Your task to perform on an android device: Go to Android settings Image 0: 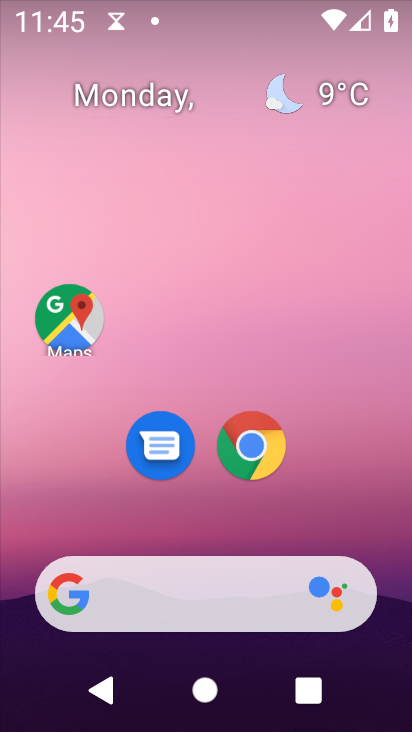
Step 0: drag from (279, 566) to (332, 6)
Your task to perform on an android device: Go to Android settings Image 1: 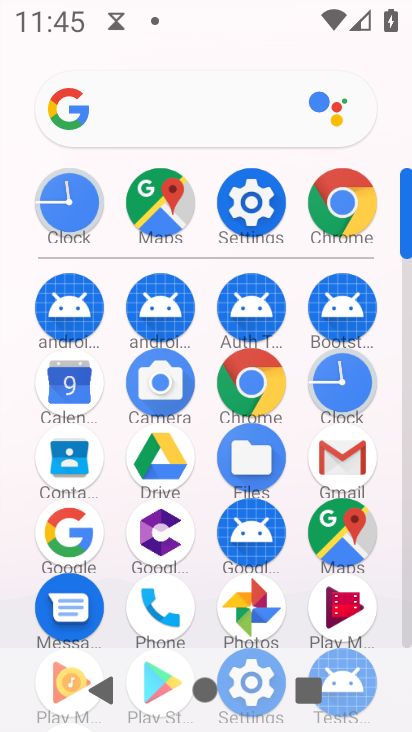
Step 1: click (268, 190)
Your task to perform on an android device: Go to Android settings Image 2: 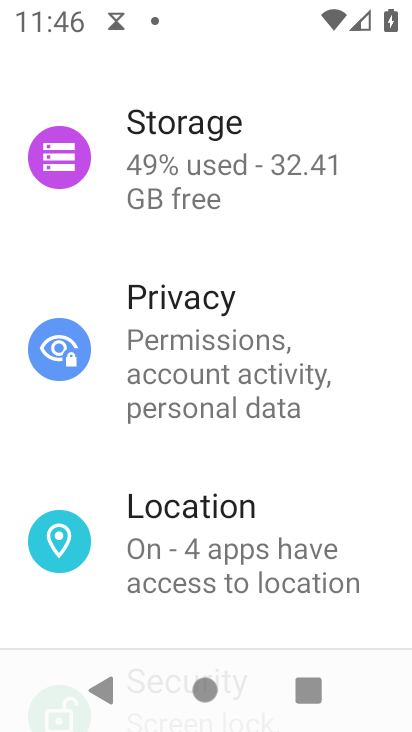
Step 2: drag from (240, 237) to (312, 96)
Your task to perform on an android device: Go to Android settings Image 3: 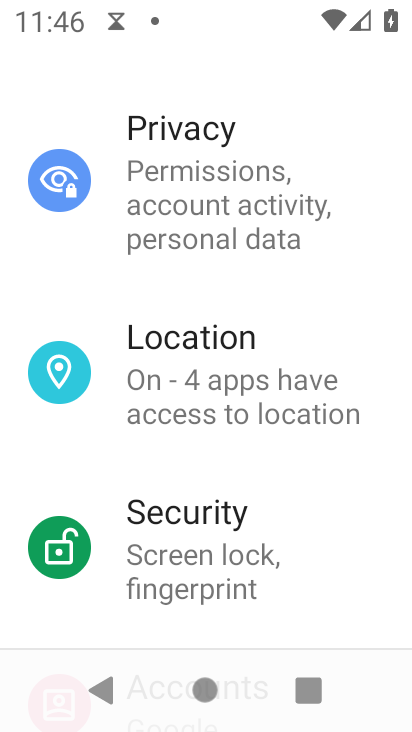
Step 3: drag from (273, 498) to (314, 104)
Your task to perform on an android device: Go to Android settings Image 4: 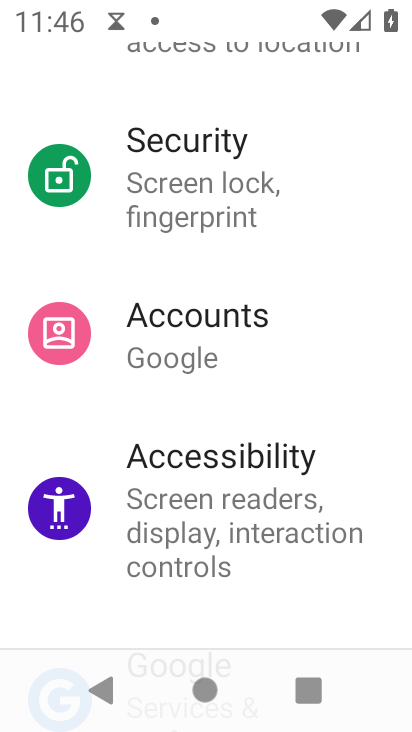
Step 4: drag from (315, 538) to (367, 96)
Your task to perform on an android device: Go to Android settings Image 5: 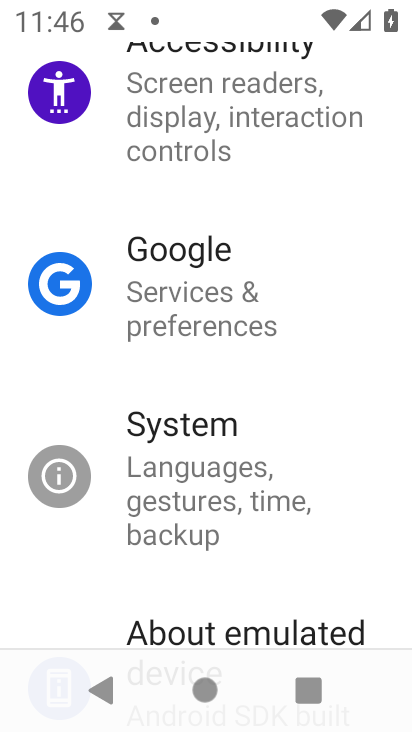
Step 5: drag from (253, 604) to (289, 216)
Your task to perform on an android device: Go to Android settings Image 6: 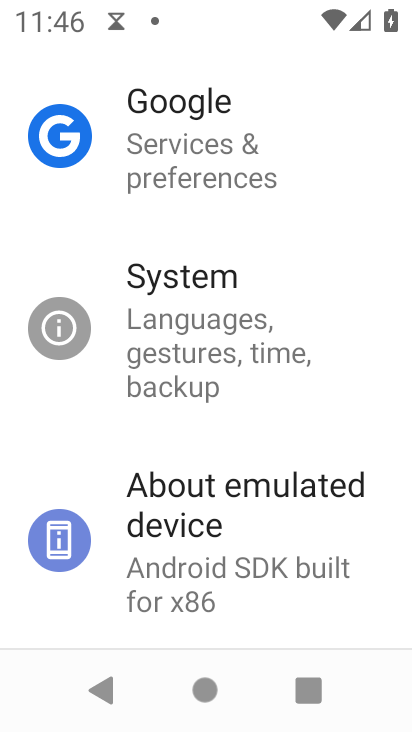
Step 6: click (238, 514)
Your task to perform on an android device: Go to Android settings Image 7: 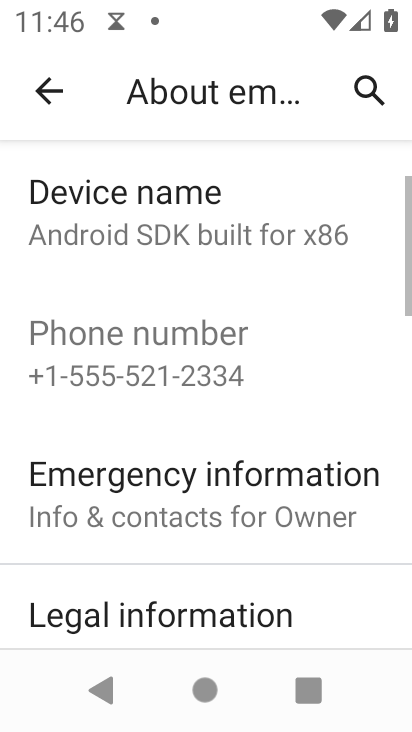
Step 7: task complete